Your task to perform on an android device: turn pop-ups off in chrome Image 0: 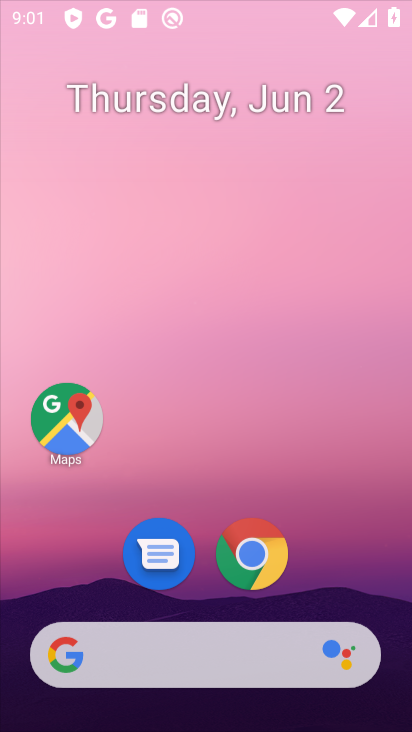
Step 0: press home button
Your task to perform on an android device: turn pop-ups off in chrome Image 1: 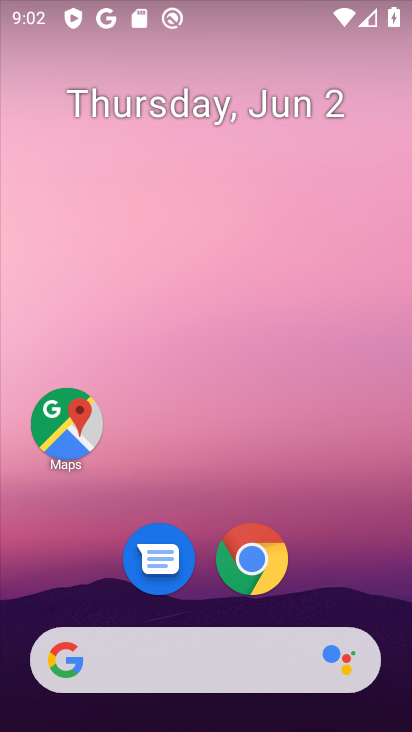
Step 1: click (261, 548)
Your task to perform on an android device: turn pop-ups off in chrome Image 2: 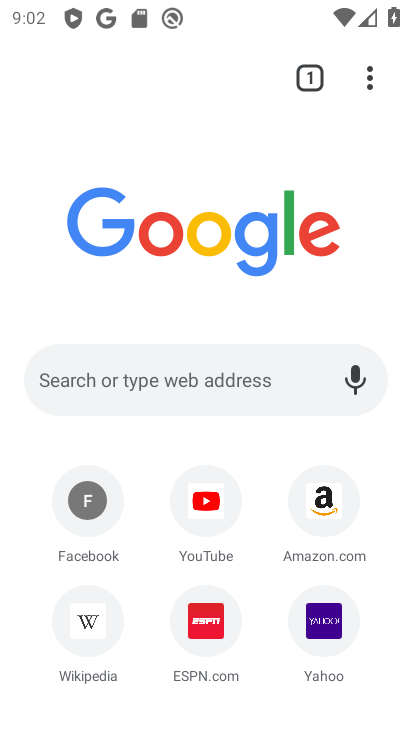
Step 2: click (375, 78)
Your task to perform on an android device: turn pop-ups off in chrome Image 3: 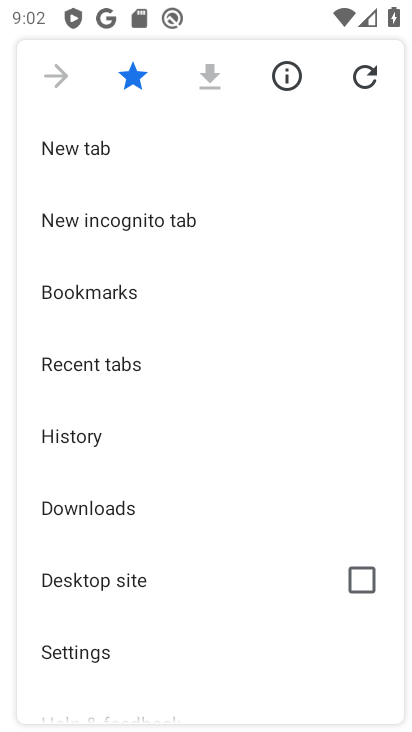
Step 3: click (113, 658)
Your task to perform on an android device: turn pop-ups off in chrome Image 4: 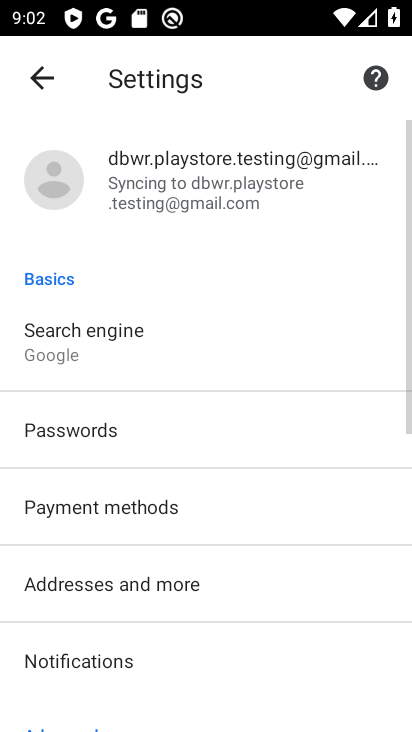
Step 4: drag from (133, 698) to (255, 270)
Your task to perform on an android device: turn pop-ups off in chrome Image 5: 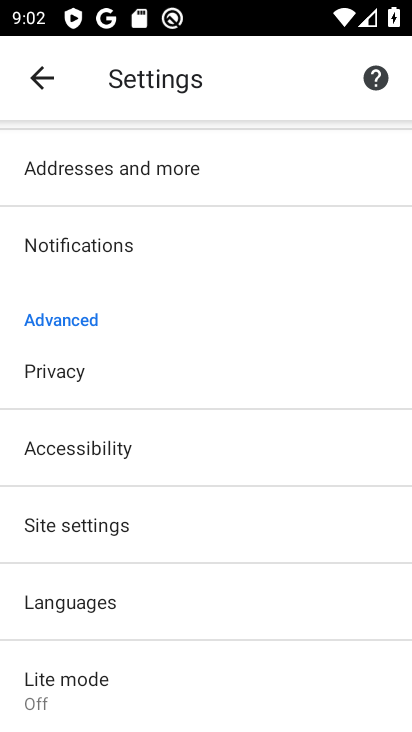
Step 5: click (88, 535)
Your task to perform on an android device: turn pop-ups off in chrome Image 6: 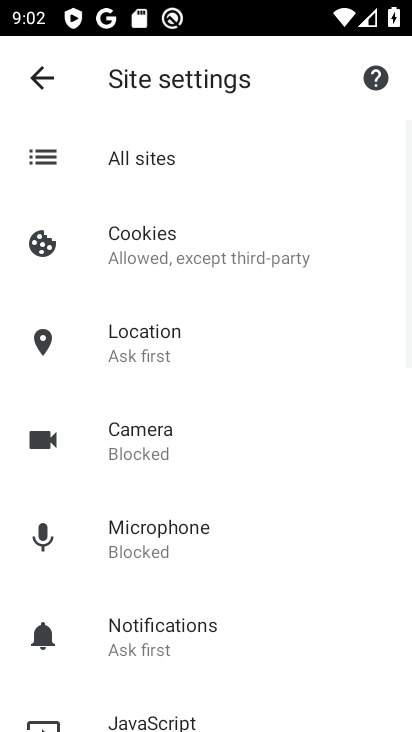
Step 6: drag from (189, 690) to (305, 348)
Your task to perform on an android device: turn pop-ups off in chrome Image 7: 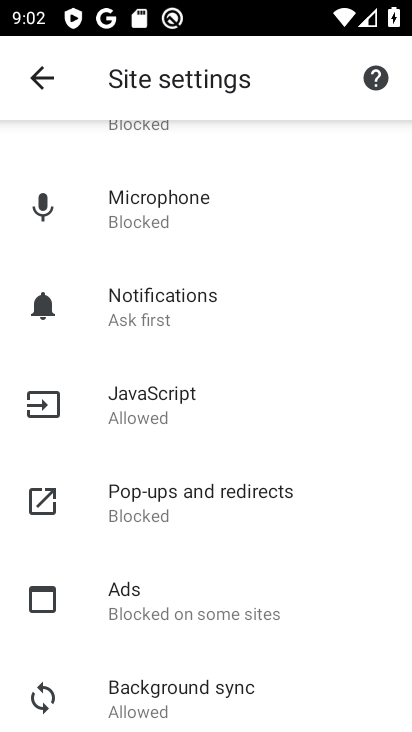
Step 7: click (169, 520)
Your task to perform on an android device: turn pop-ups off in chrome Image 8: 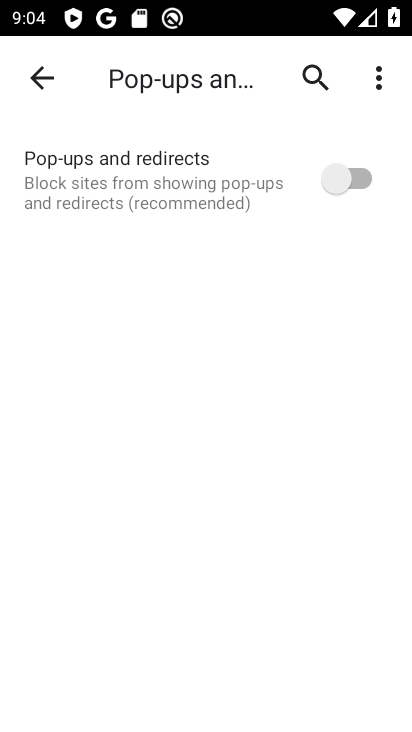
Step 8: task complete